Your task to perform on an android device: create a new album in the google photos Image 0: 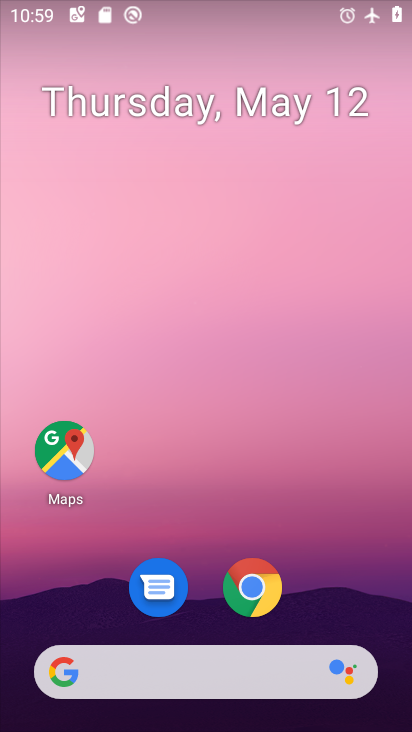
Step 0: drag from (377, 649) to (263, 175)
Your task to perform on an android device: create a new album in the google photos Image 1: 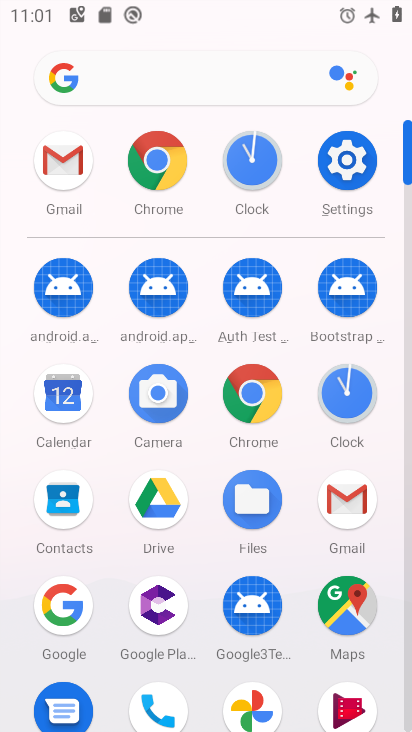
Step 1: click (249, 714)
Your task to perform on an android device: create a new album in the google photos Image 2: 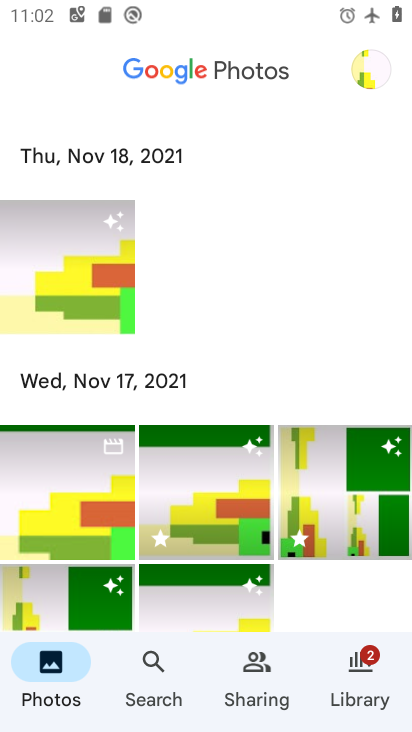
Step 2: click (56, 248)
Your task to perform on an android device: create a new album in the google photos Image 3: 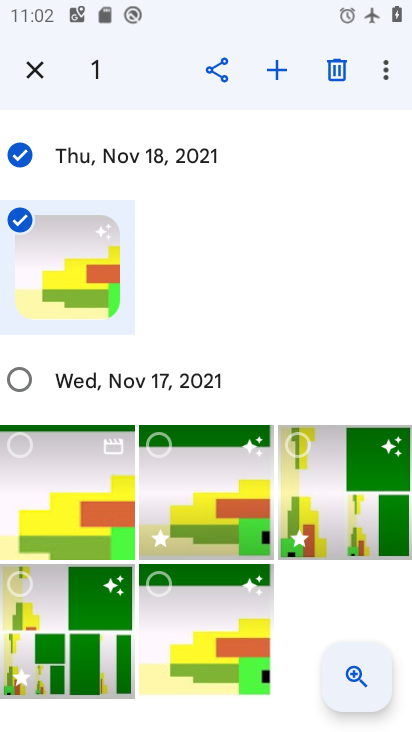
Step 3: click (273, 71)
Your task to perform on an android device: create a new album in the google photos Image 4: 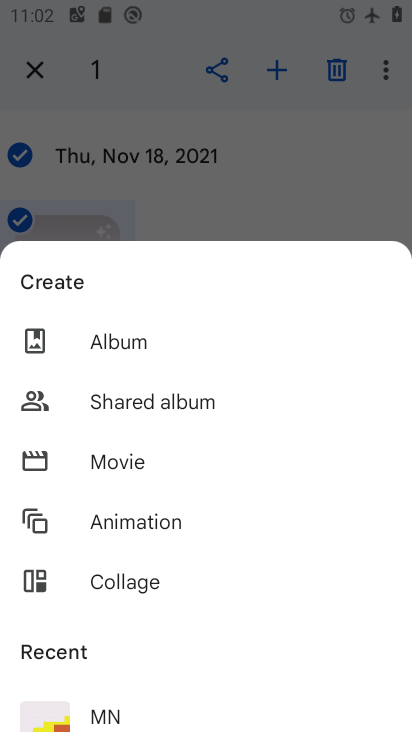
Step 4: click (164, 349)
Your task to perform on an android device: create a new album in the google photos Image 5: 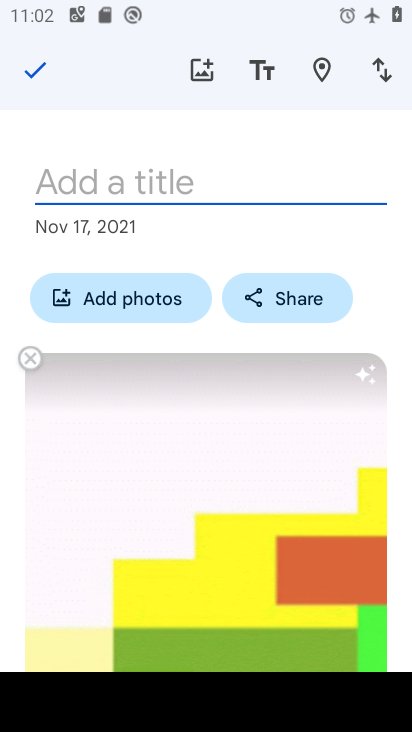
Step 5: type "VC"
Your task to perform on an android device: create a new album in the google photos Image 6: 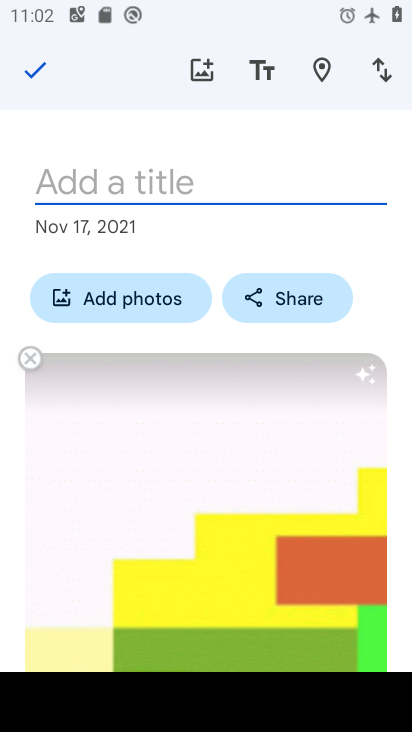
Step 6: click (26, 69)
Your task to perform on an android device: create a new album in the google photos Image 7: 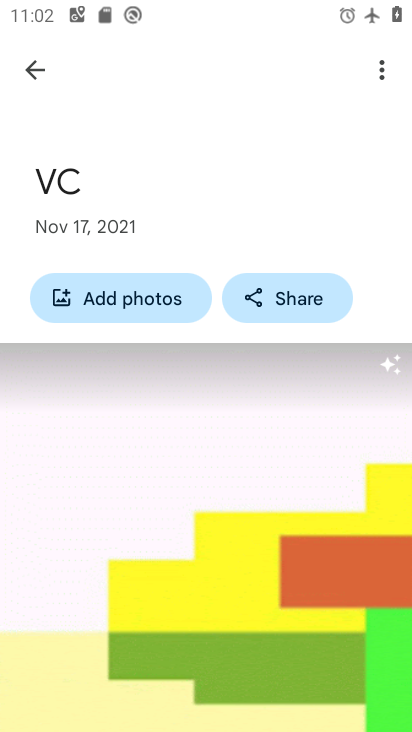
Step 7: task complete